Your task to perform on an android device: open app "Lyft - Rideshare, Bikes, Scooters & Transit" Image 0: 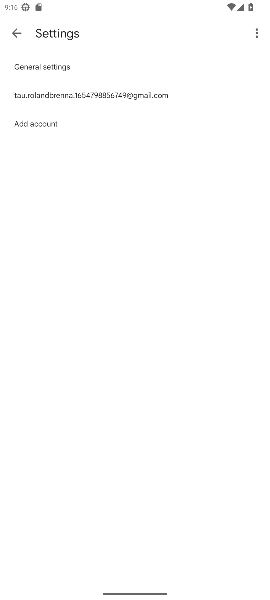
Step 0: press home button
Your task to perform on an android device: open app "Lyft - Rideshare, Bikes, Scooters & Transit" Image 1: 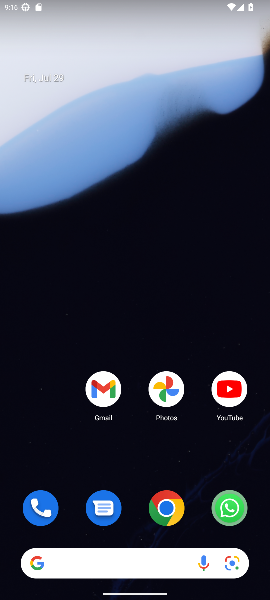
Step 1: drag from (129, 543) to (123, 50)
Your task to perform on an android device: open app "Lyft - Rideshare, Bikes, Scooters & Transit" Image 2: 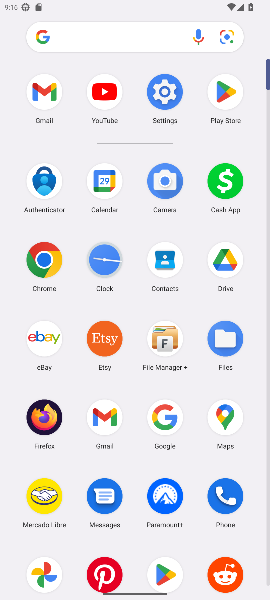
Step 2: click (223, 91)
Your task to perform on an android device: open app "Lyft - Rideshare, Bikes, Scooters & Transit" Image 3: 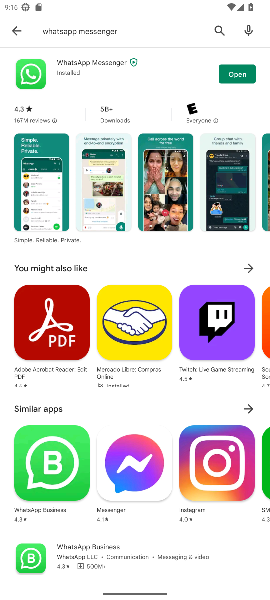
Step 3: click (220, 26)
Your task to perform on an android device: open app "Lyft - Rideshare, Bikes, Scooters & Transit" Image 4: 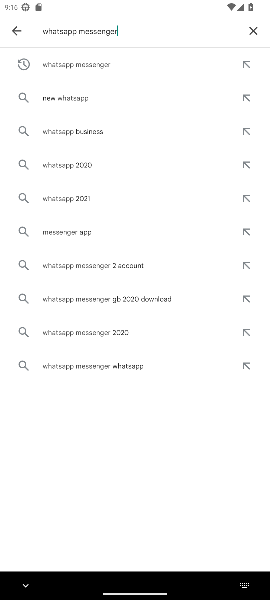
Step 4: click (253, 22)
Your task to perform on an android device: open app "Lyft - Rideshare, Bikes, Scooters & Transit" Image 5: 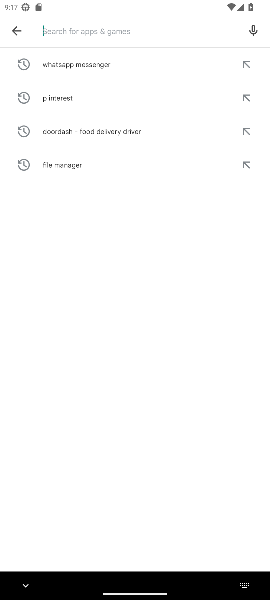
Step 5: type "lyft - rideshare, bikes, scooters & transit"
Your task to perform on an android device: open app "Lyft - Rideshare, Bikes, Scooters & Transit" Image 6: 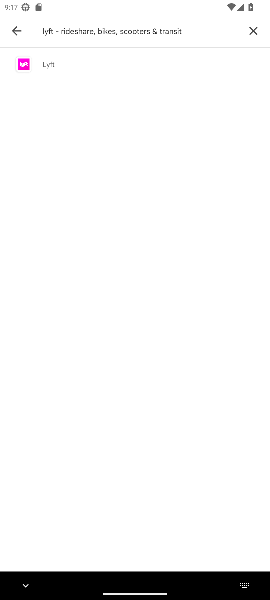
Step 6: click (49, 65)
Your task to perform on an android device: open app "Lyft - Rideshare, Bikes, Scooters & Transit" Image 7: 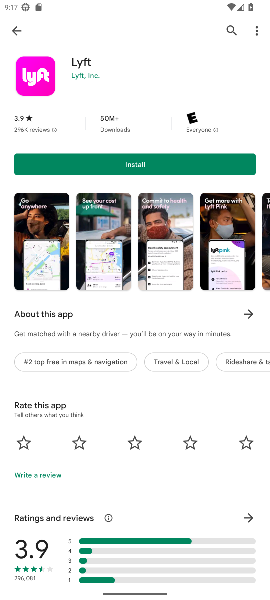
Step 7: task complete